Your task to perform on an android device: Open wifi settings Image 0: 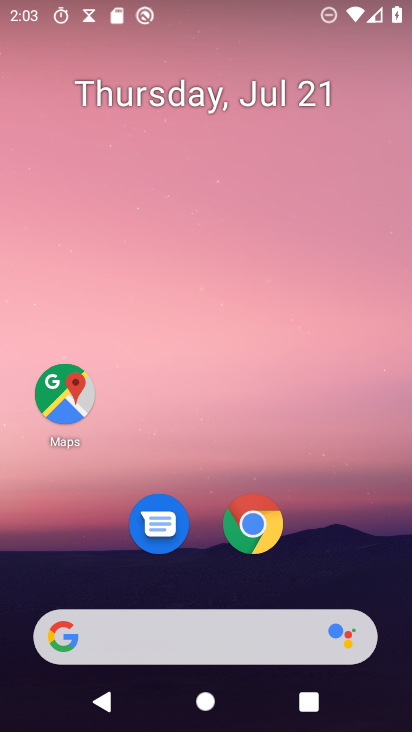
Step 0: press home button
Your task to perform on an android device: Open wifi settings Image 1: 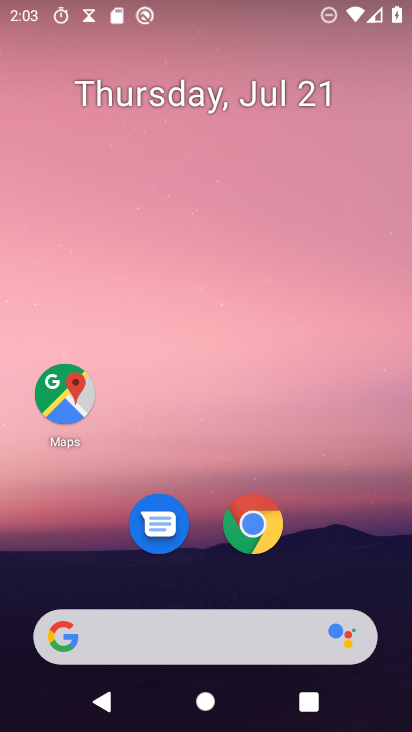
Step 1: drag from (184, 631) to (212, 0)
Your task to perform on an android device: Open wifi settings Image 2: 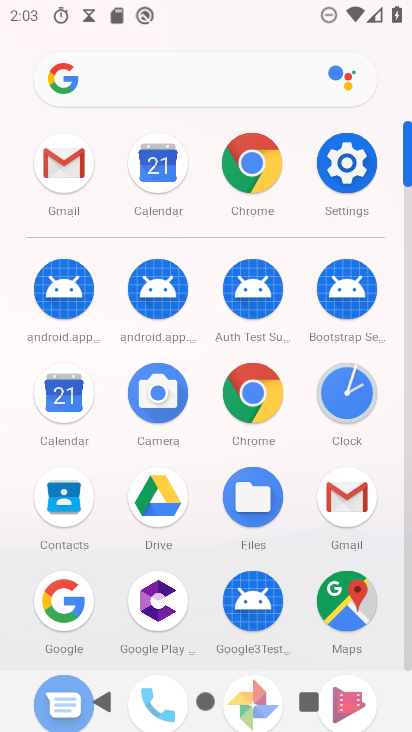
Step 2: click (331, 172)
Your task to perform on an android device: Open wifi settings Image 3: 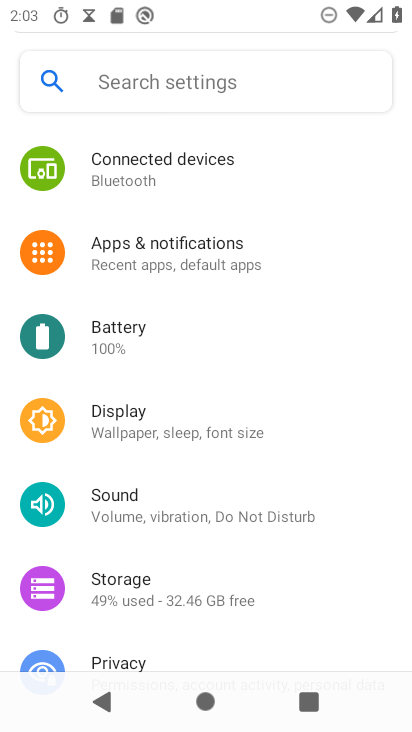
Step 3: drag from (361, 178) to (256, 572)
Your task to perform on an android device: Open wifi settings Image 4: 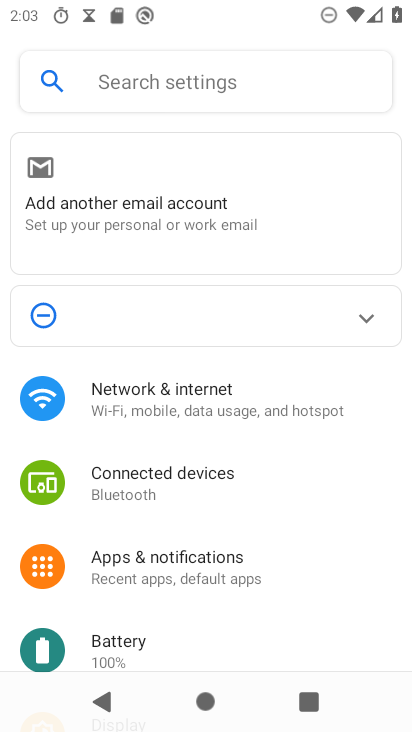
Step 4: click (189, 396)
Your task to perform on an android device: Open wifi settings Image 5: 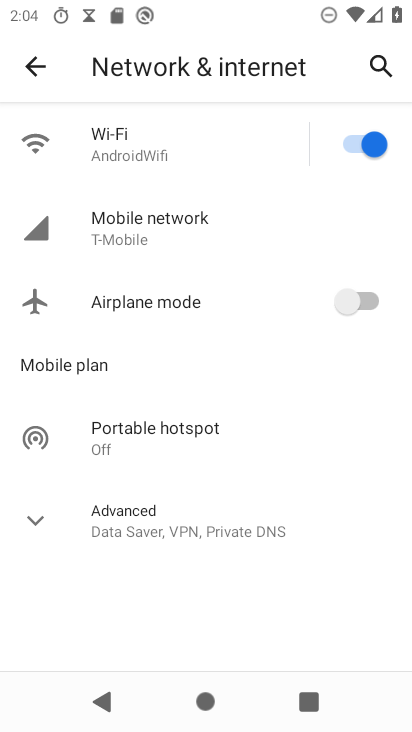
Step 5: click (135, 155)
Your task to perform on an android device: Open wifi settings Image 6: 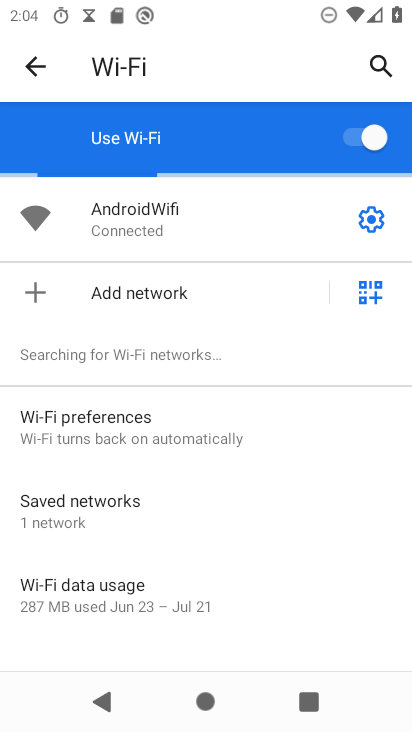
Step 6: task complete